Your task to perform on an android device: delete a single message in the gmail app Image 0: 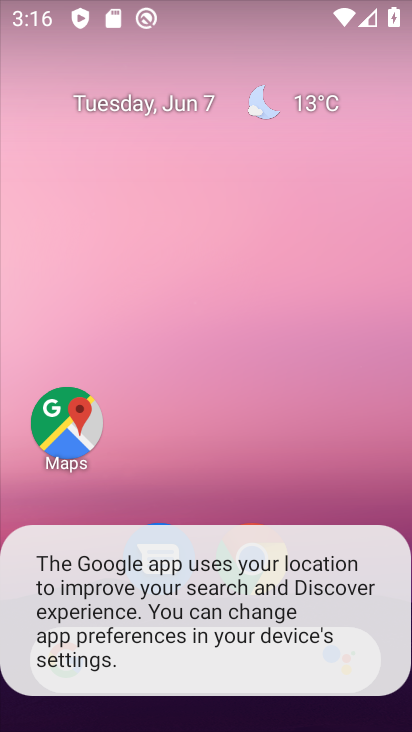
Step 0: press home button
Your task to perform on an android device: delete a single message in the gmail app Image 1: 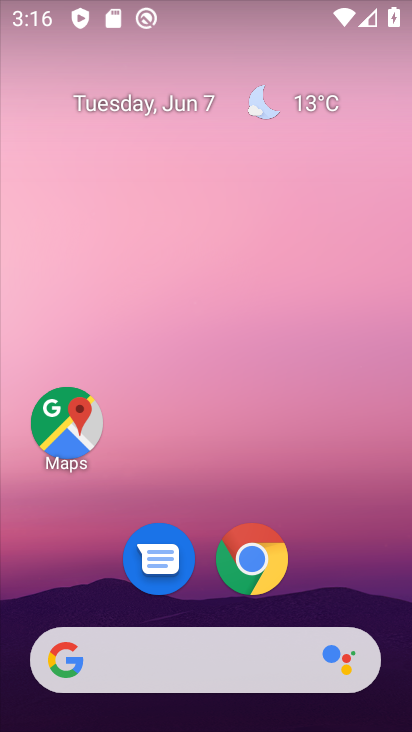
Step 1: drag from (207, 716) to (225, 128)
Your task to perform on an android device: delete a single message in the gmail app Image 2: 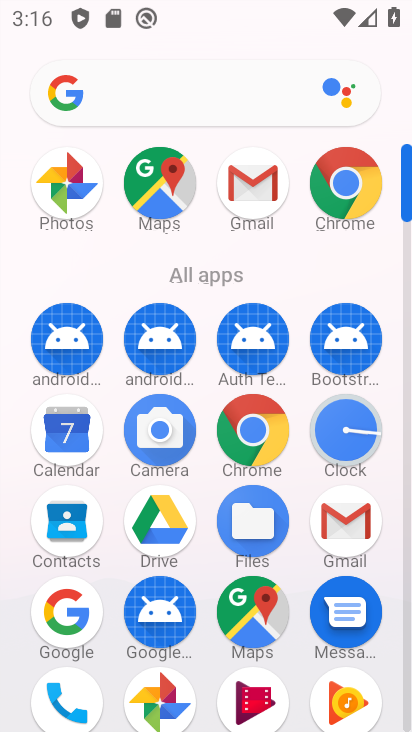
Step 2: click (345, 520)
Your task to perform on an android device: delete a single message in the gmail app Image 3: 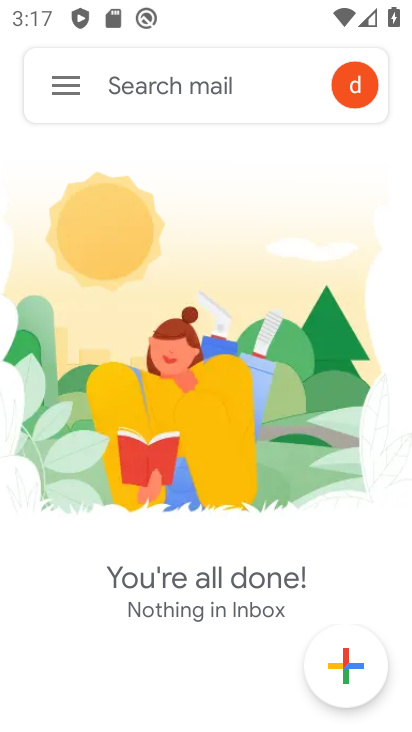
Step 3: task complete